Your task to perform on an android device: Go to wifi settings Image 0: 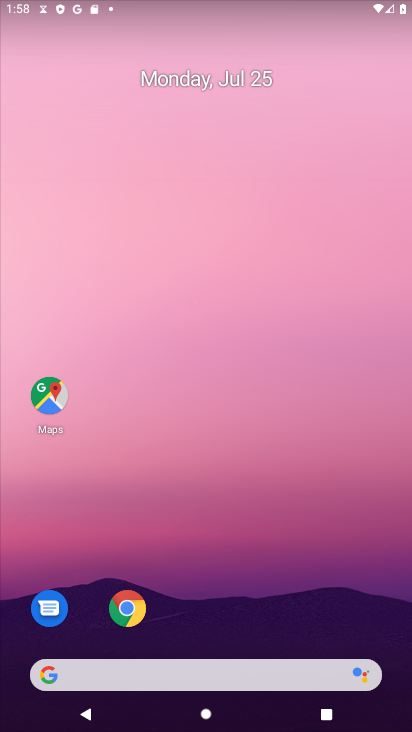
Step 0: drag from (166, 675) to (310, 18)
Your task to perform on an android device: Go to wifi settings Image 1: 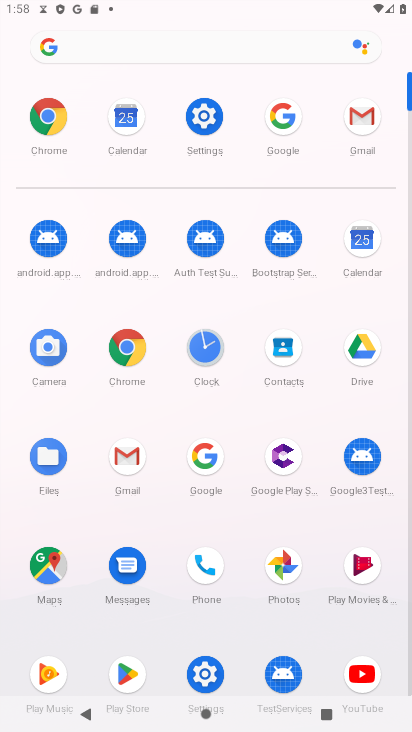
Step 1: click (204, 116)
Your task to perform on an android device: Go to wifi settings Image 2: 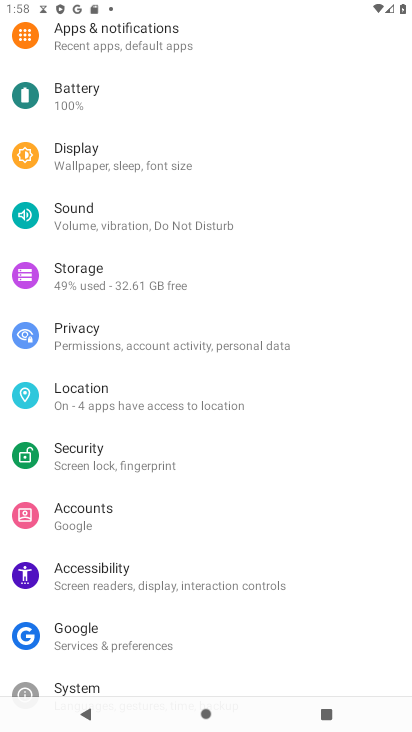
Step 2: drag from (160, 111) to (149, 212)
Your task to perform on an android device: Go to wifi settings Image 3: 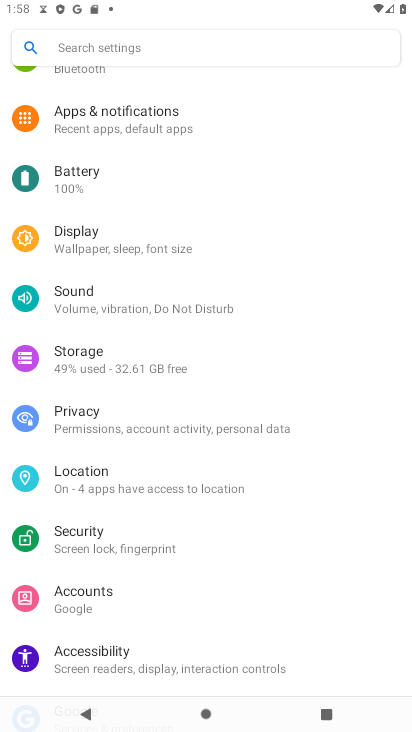
Step 3: drag from (141, 164) to (136, 287)
Your task to perform on an android device: Go to wifi settings Image 4: 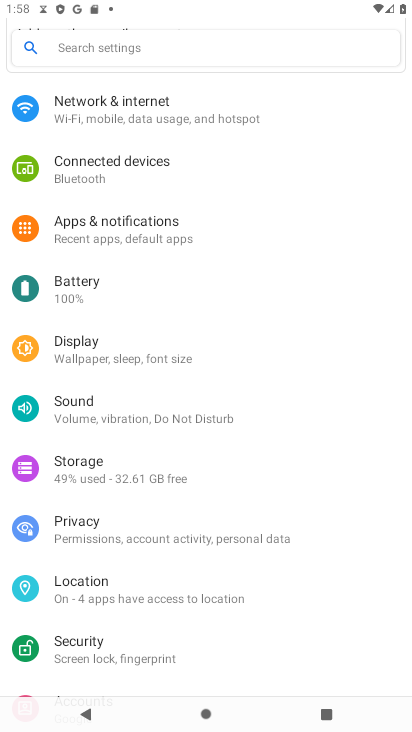
Step 4: drag from (151, 189) to (168, 325)
Your task to perform on an android device: Go to wifi settings Image 5: 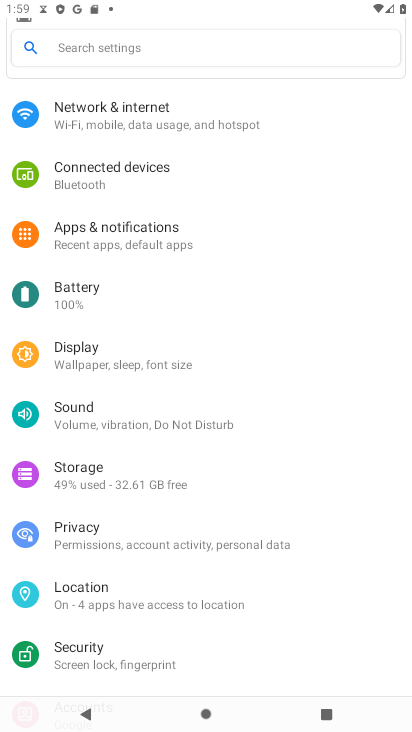
Step 5: click (115, 117)
Your task to perform on an android device: Go to wifi settings Image 6: 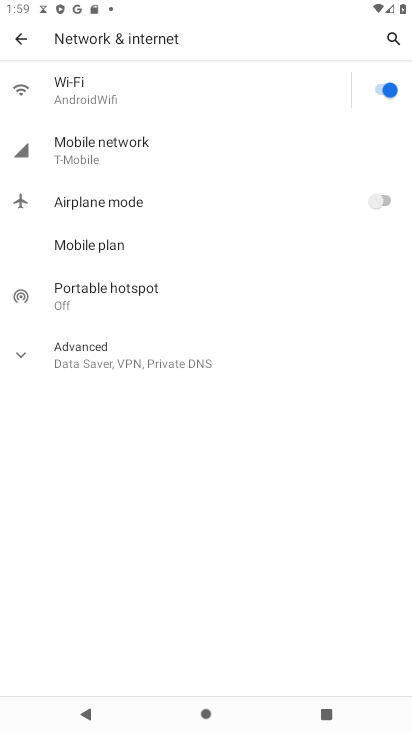
Step 6: click (84, 100)
Your task to perform on an android device: Go to wifi settings Image 7: 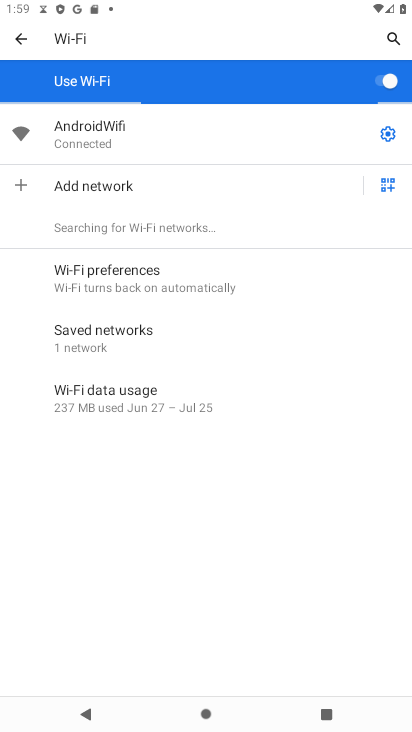
Step 7: click (389, 133)
Your task to perform on an android device: Go to wifi settings Image 8: 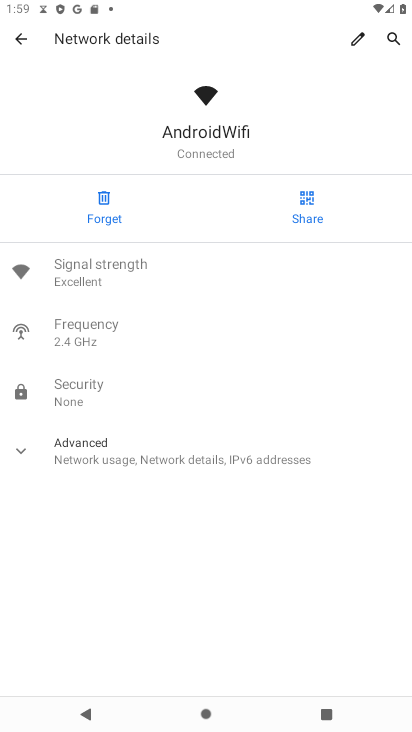
Step 8: task complete